Your task to perform on an android device: Open Youtube and go to the subscriptions tab Image 0: 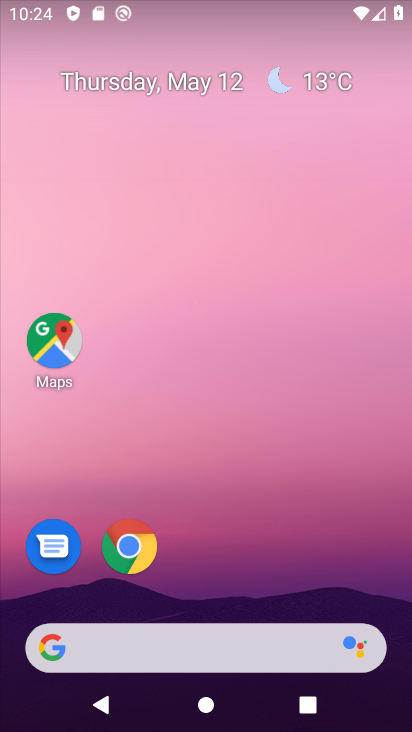
Step 0: drag from (269, 669) to (276, 272)
Your task to perform on an android device: Open Youtube and go to the subscriptions tab Image 1: 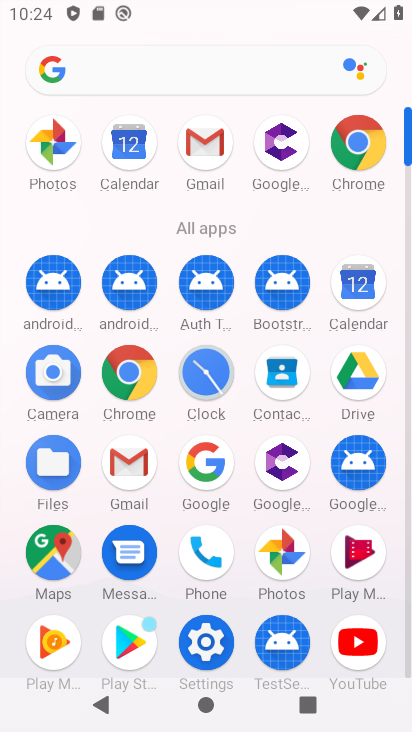
Step 1: click (356, 630)
Your task to perform on an android device: Open Youtube and go to the subscriptions tab Image 2: 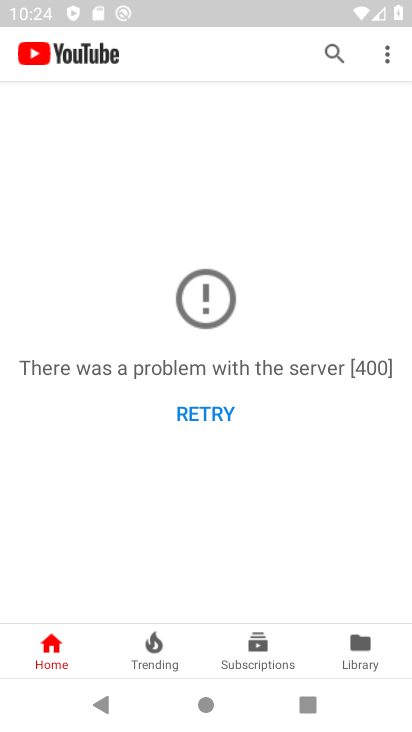
Step 2: click (247, 654)
Your task to perform on an android device: Open Youtube and go to the subscriptions tab Image 3: 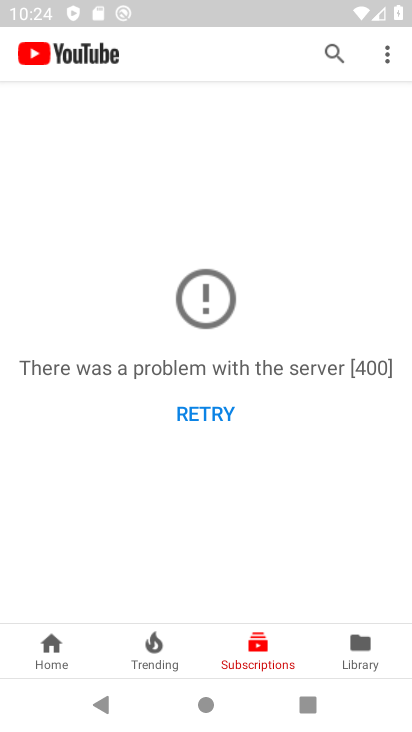
Step 3: task complete